Your task to perform on an android device: Search for Mexican restaurants on Maps Image 0: 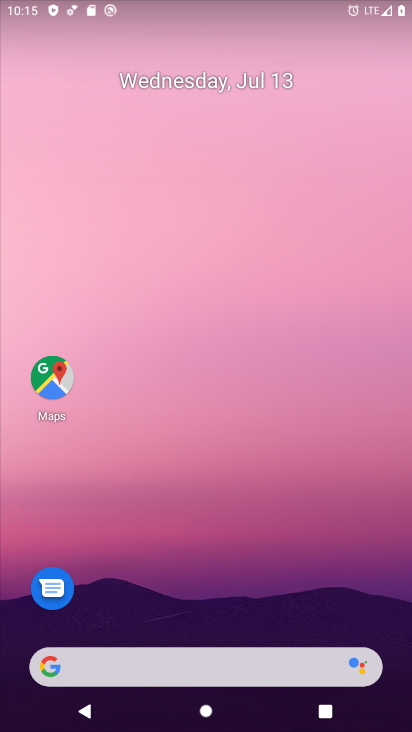
Step 0: click (49, 365)
Your task to perform on an android device: Search for Mexican restaurants on Maps Image 1: 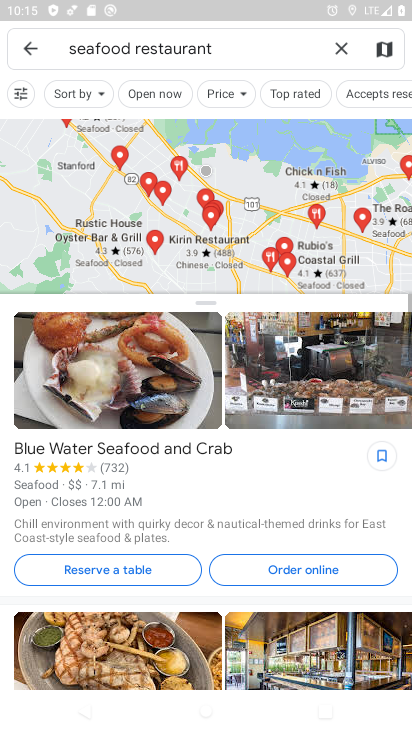
Step 1: click (342, 52)
Your task to perform on an android device: Search for Mexican restaurants on Maps Image 2: 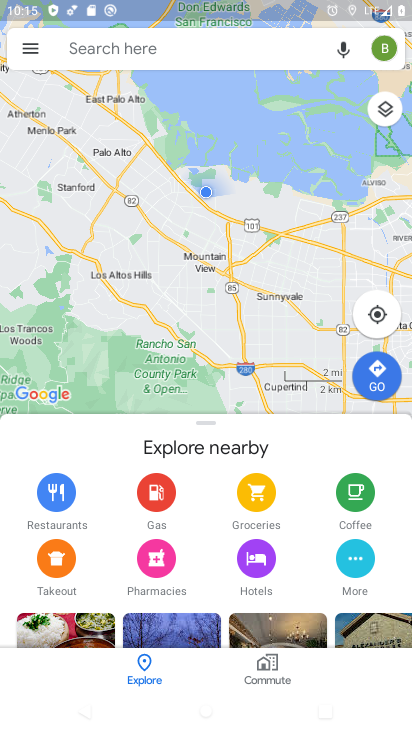
Step 2: click (213, 54)
Your task to perform on an android device: Search for Mexican restaurants on Maps Image 3: 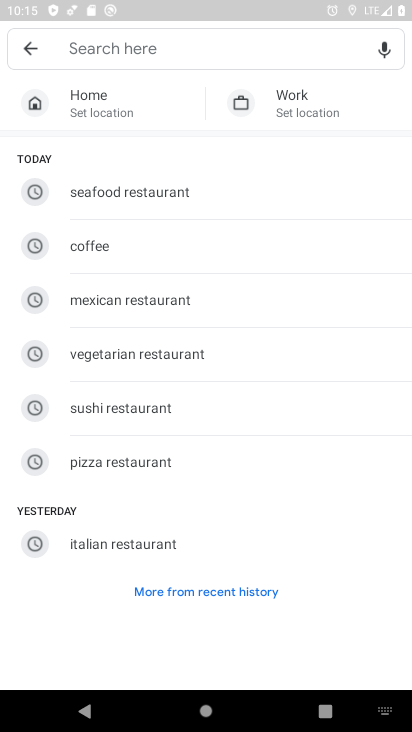
Step 3: click (178, 303)
Your task to perform on an android device: Search for Mexican restaurants on Maps Image 4: 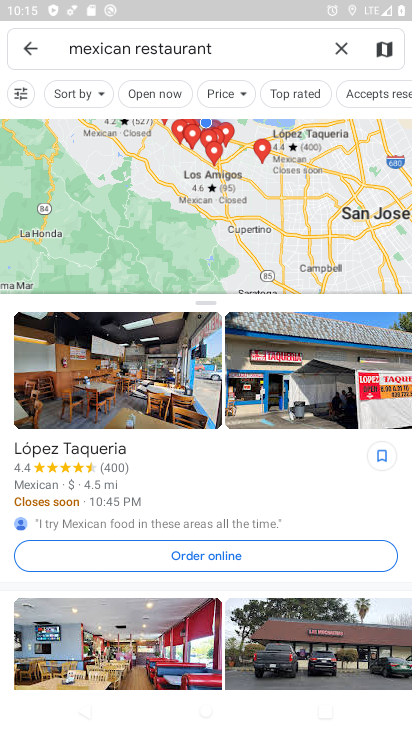
Step 4: click (249, 48)
Your task to perform on an android device: Search for Mexican restaurants on Maps Image 5: 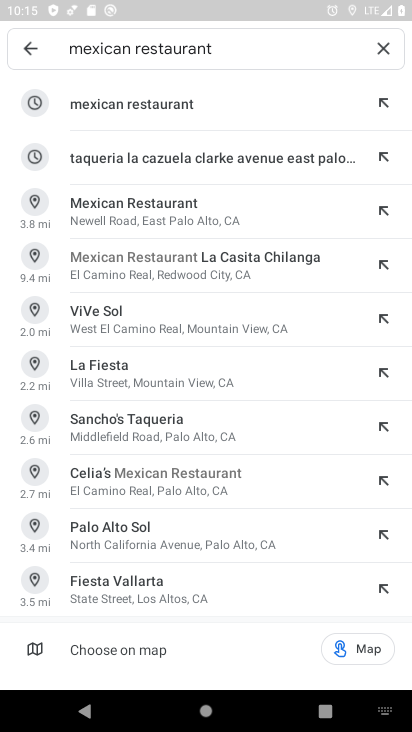
Step 5: click (261, 99)
Your task to perform on an android device: Search for Mexican restaurants on Maps Image 6: 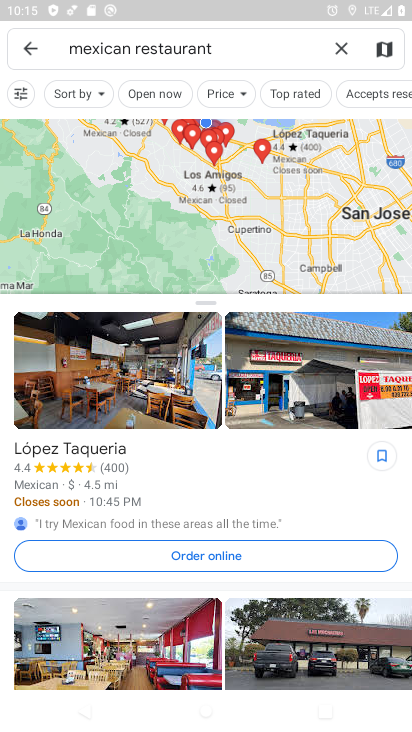
Step 6: task complete